Your task to perform on an android device: What's the news in Vietnam? Image 0: 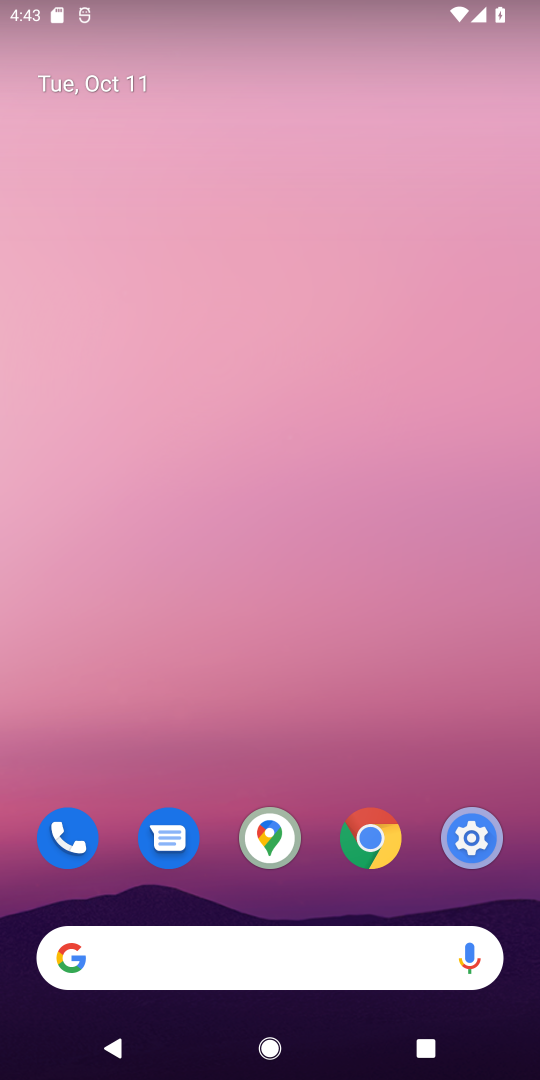
Step 0: click (374, 860)
Your task to perform on an android device: What's the news in Vietnam? Image 1: 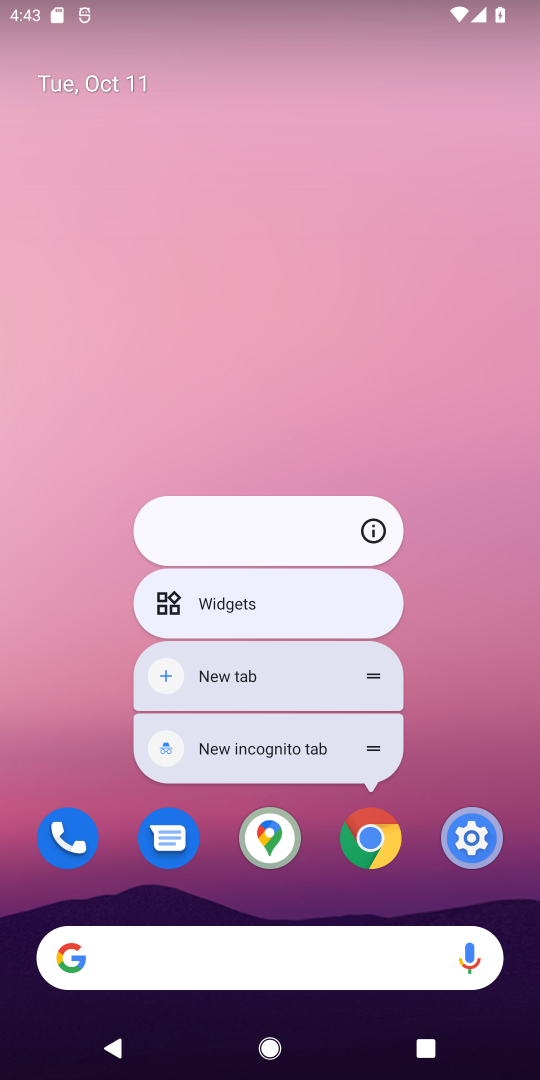
Step 1: click (369, 846)
Your task to perform on an android device: What's the news in Vietnam? Image 2: 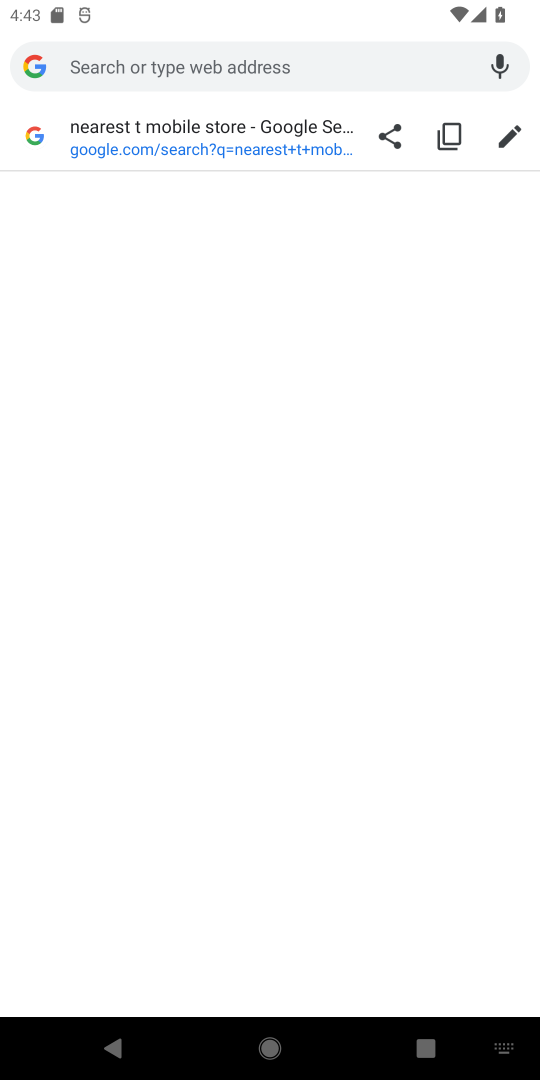
Step 2: type "news in vietnam"
Your task to perform on an android device: What's the news in Vietnam? Image 3: 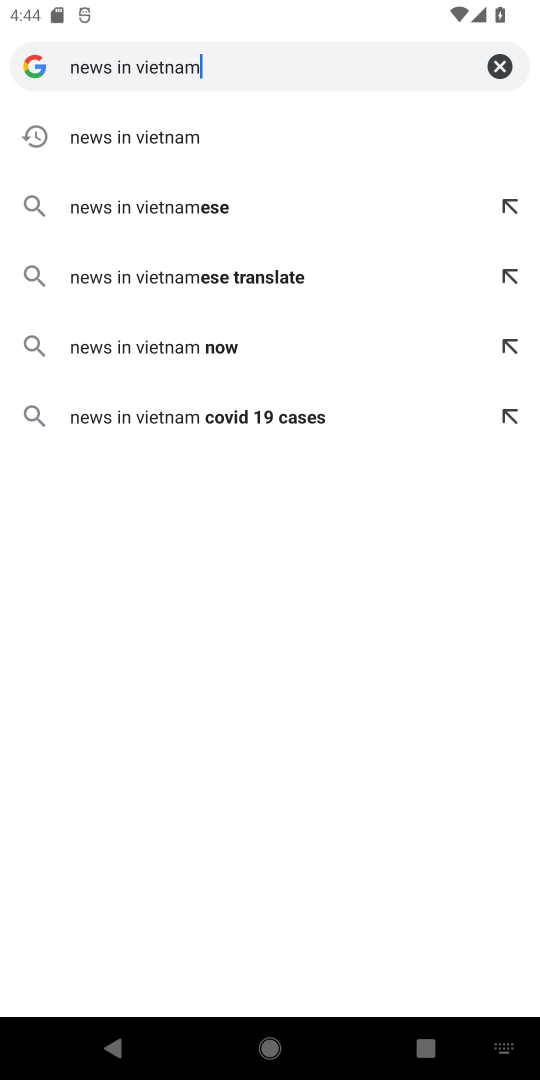
Step 3: click (161, 138)
Your task to perform on an android device: What's the news in Vietnam? Image 4: 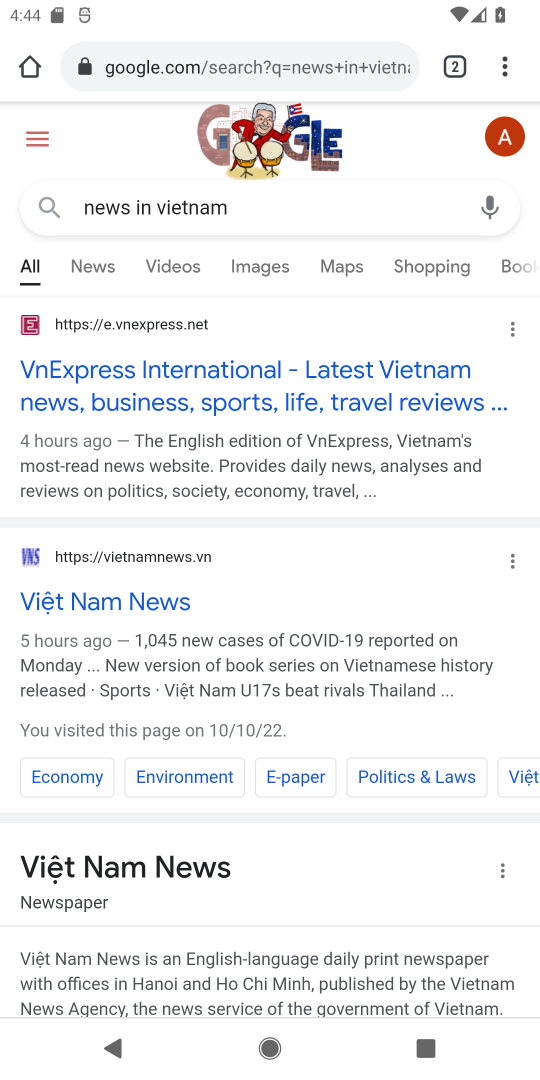
Step 4: click (129, 861)
Your task to perform on an android device: What's the news in Vietnam? Image 5: 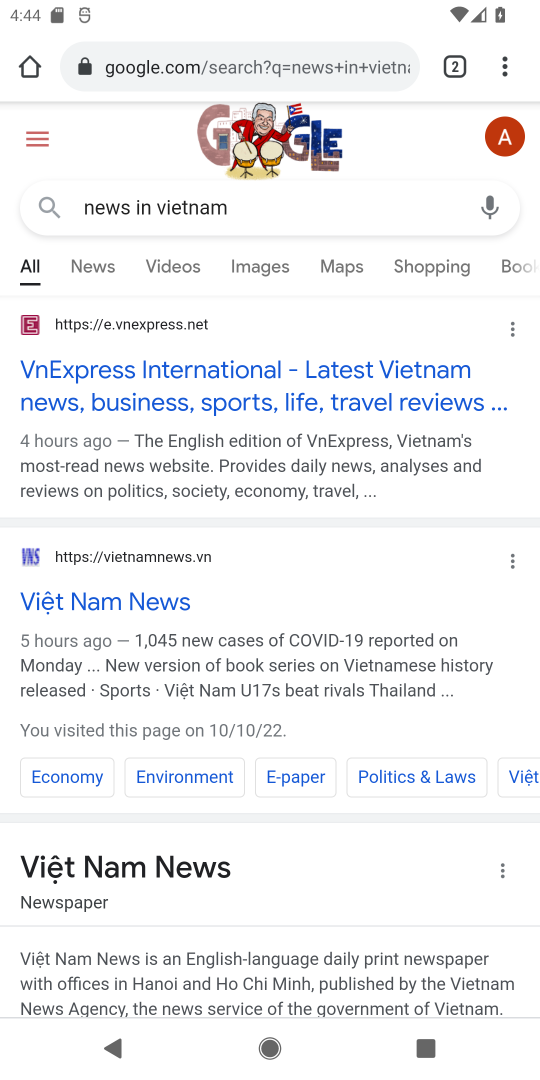
Step 5: click (103, 866)
Your task to perform on an android device: What's the news in Vietnam? Image 6: 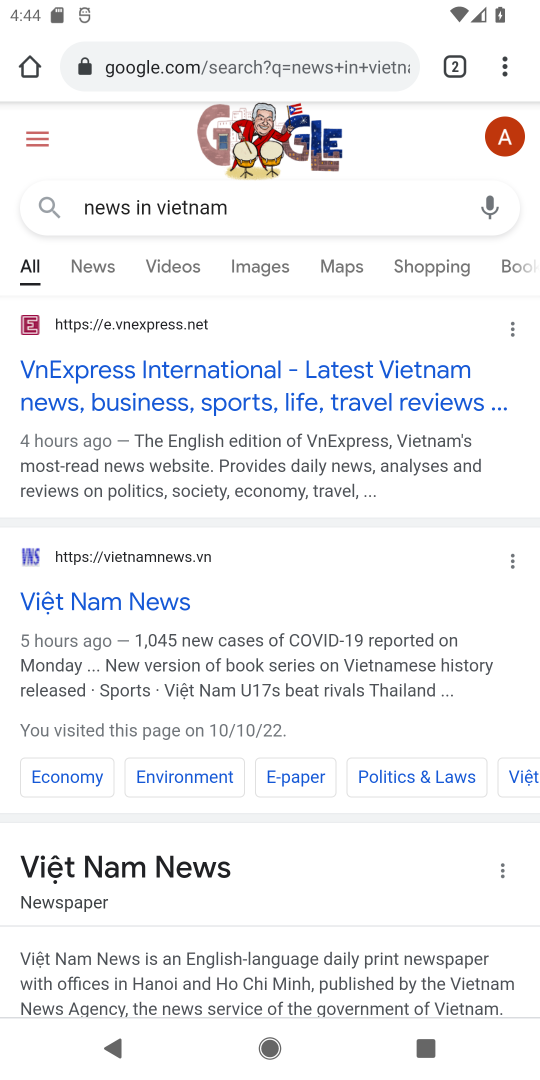
Step 6: task complete